Your task to perform on an android device: Open location settings Image 0: 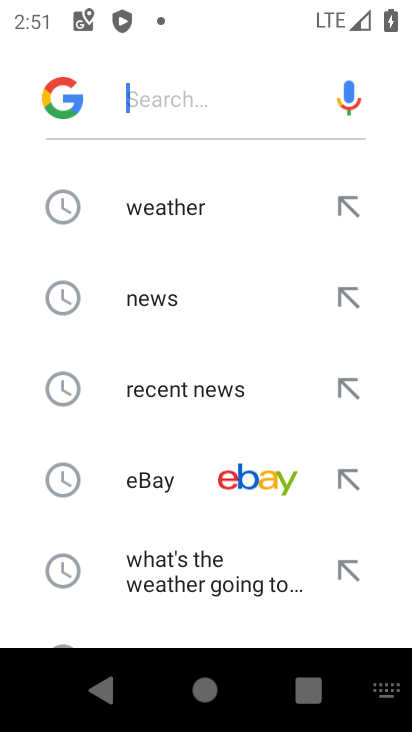
Step 0: press home button
Your task to perform on an android device: Open location settings Image 1: 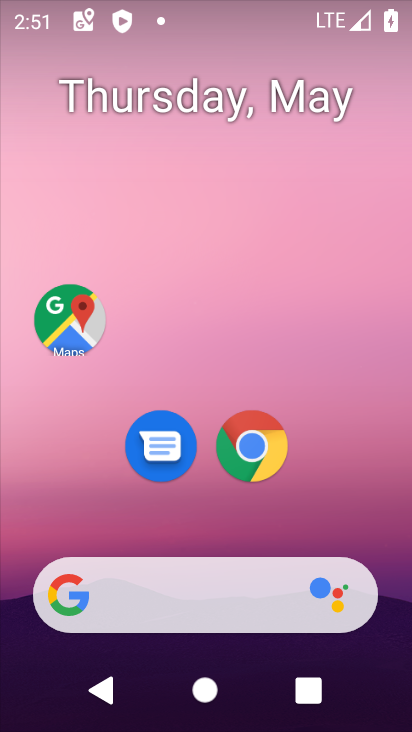
Step 1: drag from (282, 517) to (287, 14)
Your task to perform on an android device: Open location settings Image 2: 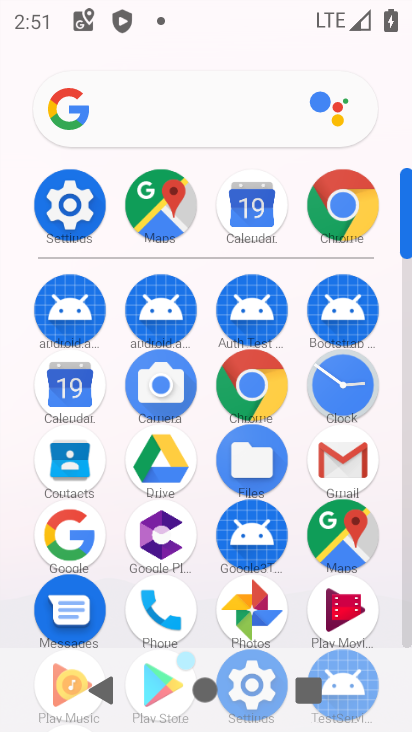
Step 2: click (74, 203)
Your task to perform on an android device: Open location settings Image 3: 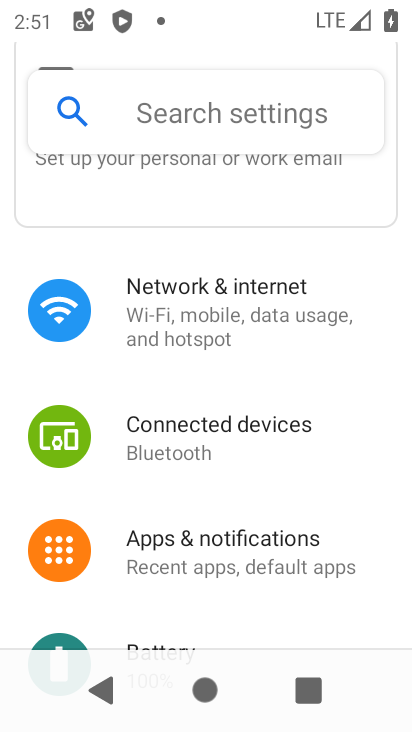
Step 3: drag from (180, 565) to (177, 357)
Your task to perform on an android device: Open location settings Image 4: 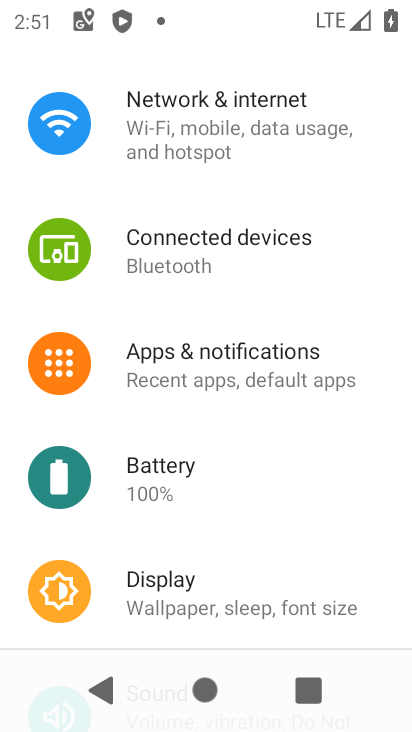
Step 4: drag from (158, 567) to (193, 336)
Your task to perform on an android device: Open location settings Image 5: 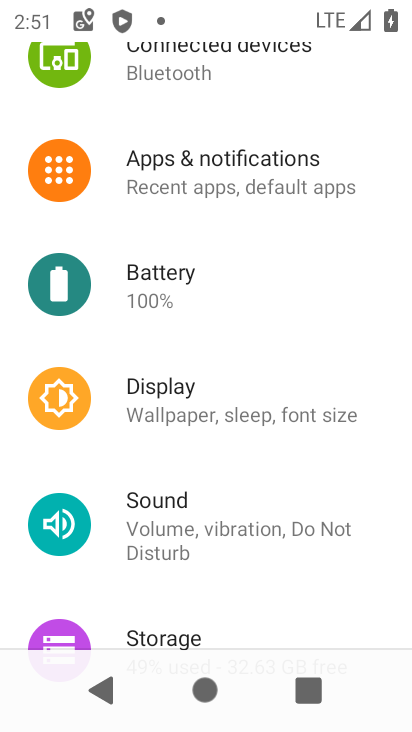
Step 5: drag from (223, 540) to (231, 326)
Your task to perform on an android device: Open location settings Image 6: 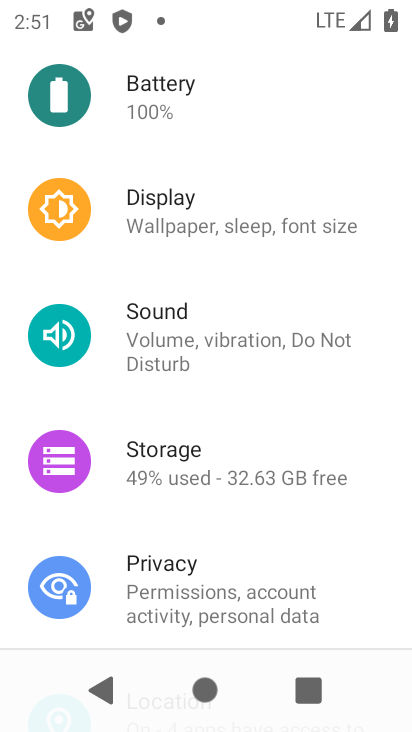
Step 6: drag from (224, 590) to (240, 341)
Your task to perform on an android device: Open location settings Image 7: 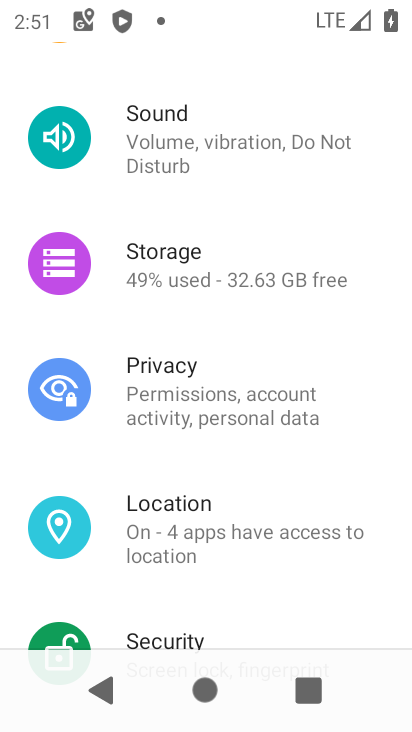
Step 7: click (217, 552)
Your task to perform on an android device: Open location settings Image 8: 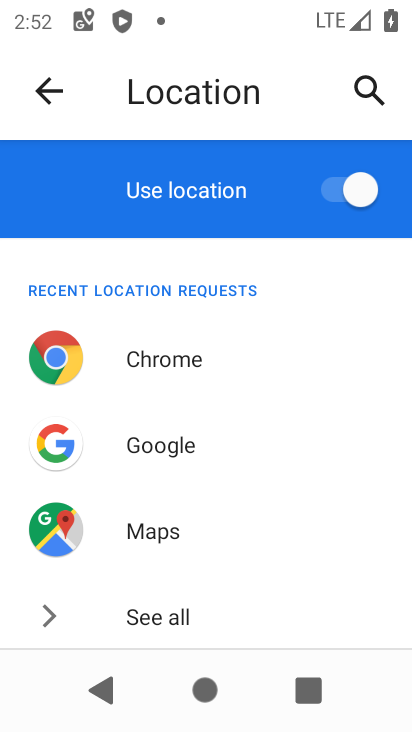
Step 8: drag from (212, 617) to (259, 362)
Your task to perform on an android device: Open location settings Image 9: 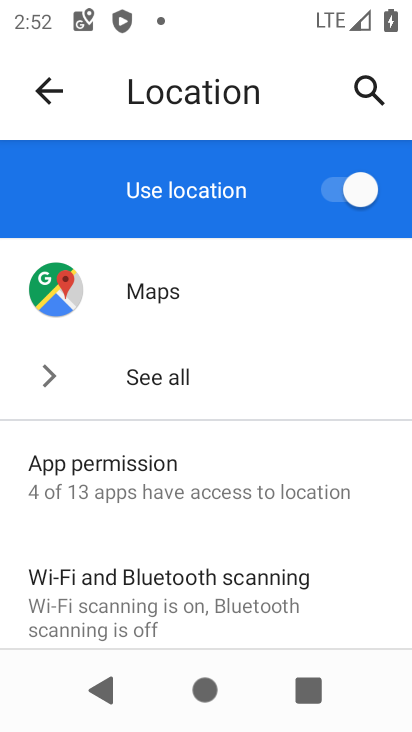
Step 9: drag from (214, 597) to (250, 314)
Your task to perform on an android device: Open location settings Image 10: 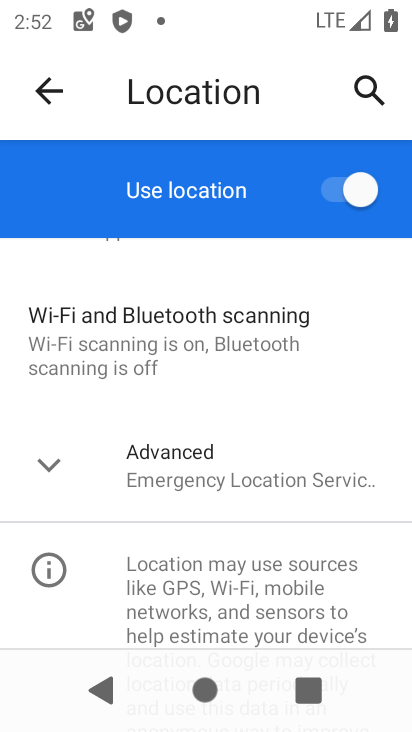
Step 10: click (185, 486)
Your task to perform on an android device: Open location settings Image 11: 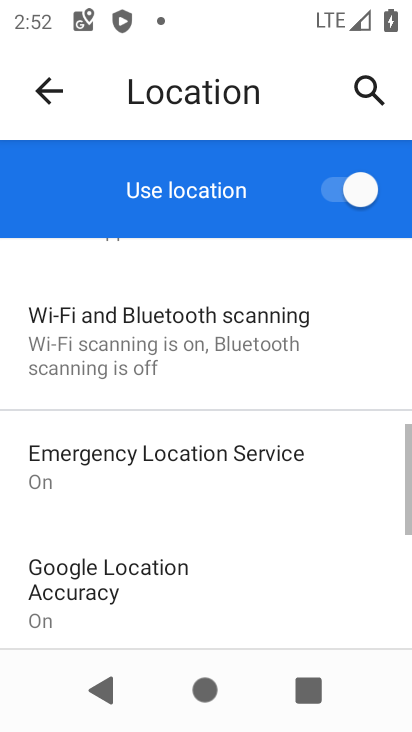
Step 11: task complete